Your task to perform on an android device: uninstall "Spotify: Music and Podcasts" Image 0: 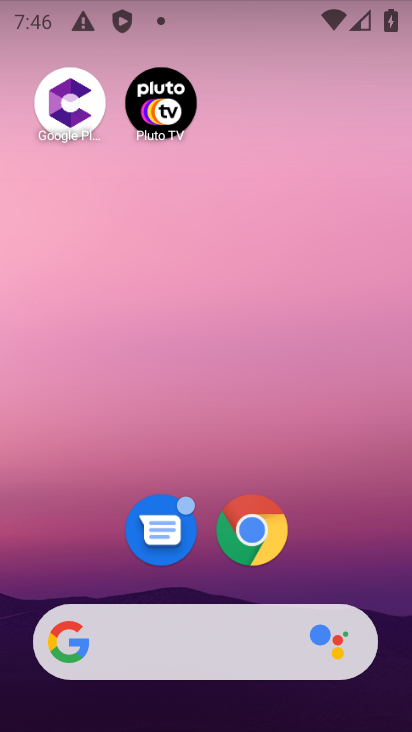
Step 0: drag from (355, 586) to (191, 55)
Your task to perform on an android device: uninstall "Spotify: Music and Podcasts" Image 1: 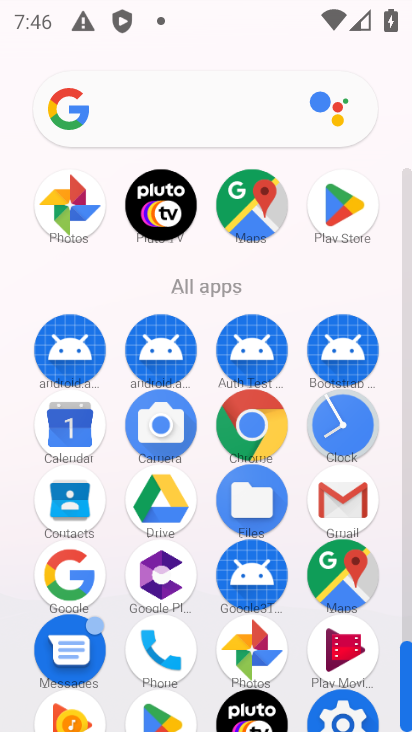
Step 1: click (351, 198)
Your task to perform on an android device: uninstall "Spotify: Music and Podcasts" Image 2: 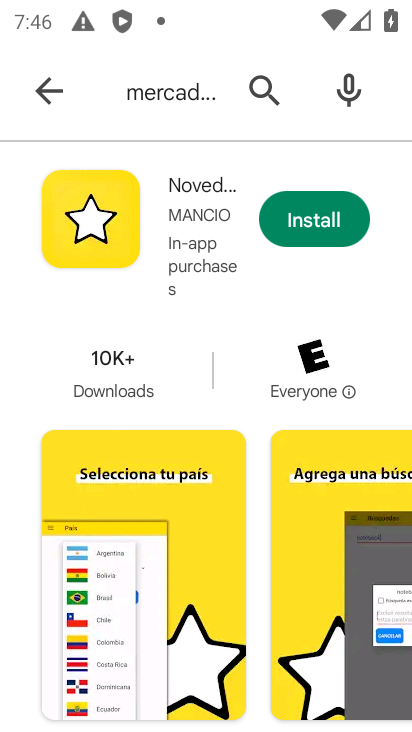
Step 2: click (48, 81)
Your task to perform on an android device: uninstall "Spotify: Music and Podcasts" Image 3: 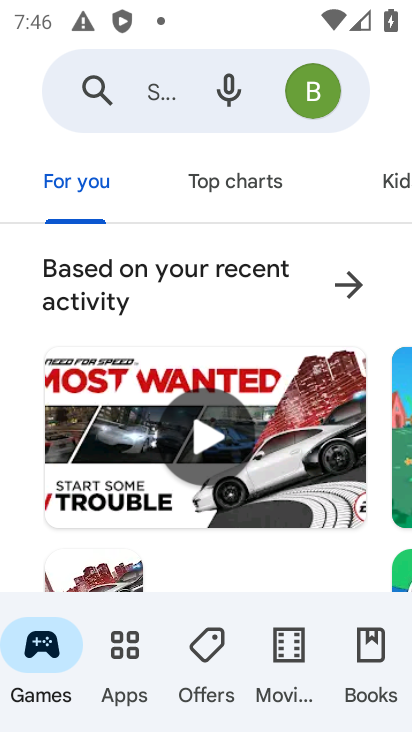
Step 3: click (149, 100)
Your task to perform on an android device: uninstall "Spotify: Music and Podcasts" Image 4: 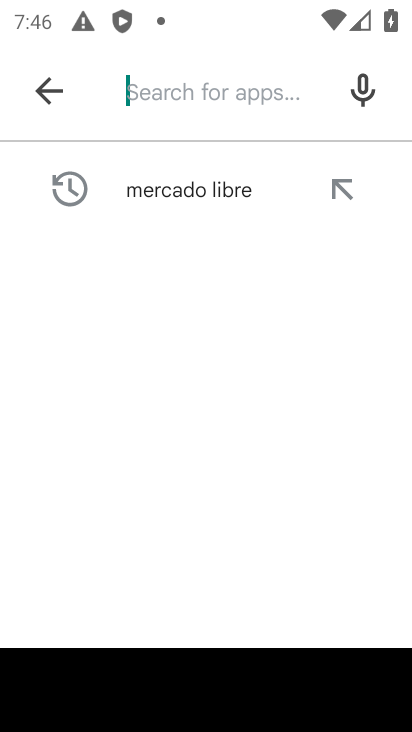
Step 4: type "Spotify: Music and Podcasts"
Your task to perform on an android device: uninstall "Spotify: Music and Podcasts" Image 5: 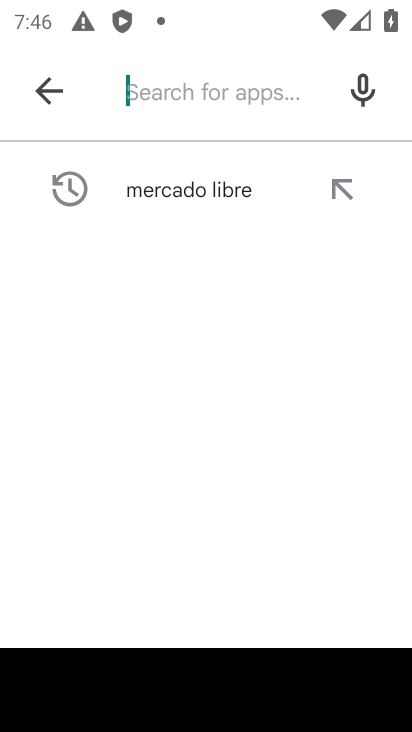
Step 5: click (401, 462)
Your task to perform on an android device: uninstall "Spotify: Music and Podcasts" Image 6: 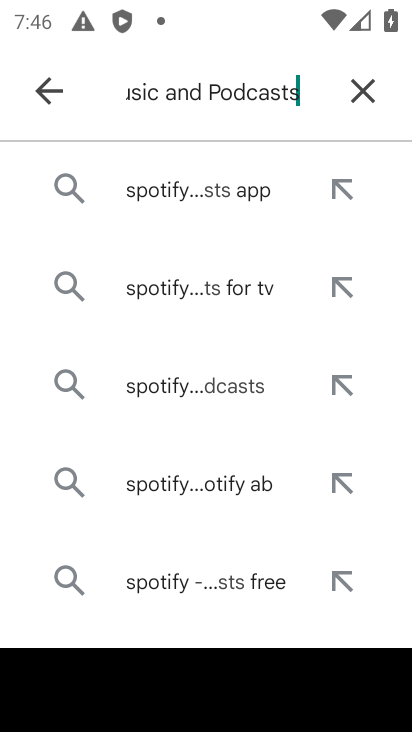
Step 6: click (112, 195)
Your task to perform on an android device: uninstall "Spotify: Music and Podcasts" Image 7: 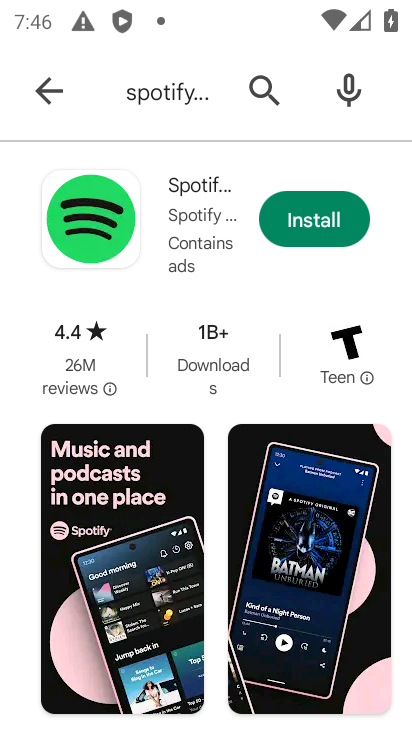
Step 7: task complete